Your task to perform on an android device: turn on priority inbox in the gmail app Image 0: 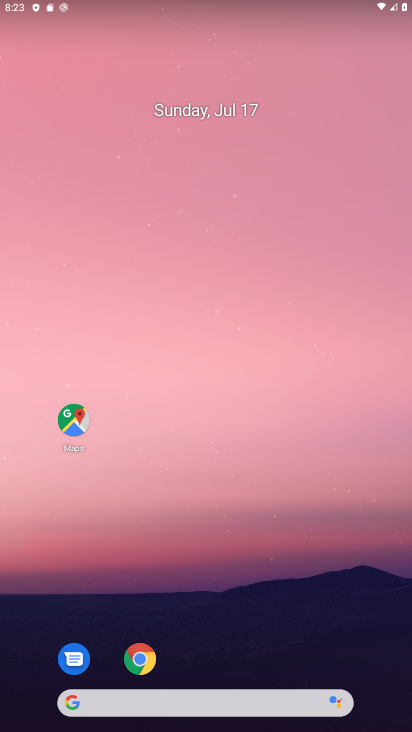
Step 0: drag from (219, 699) to (323, 127)
Your task to perform on an android device: turn on priority inbox in the gmail app Image 1: 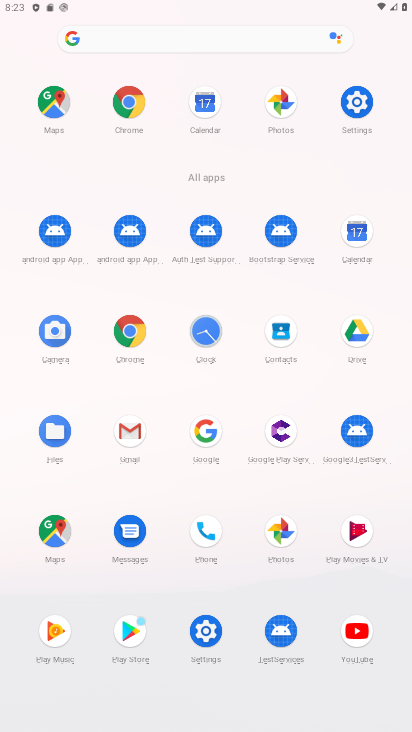
Step 1: click (128, 430)
Your task to perform on an android device: turn on priority inbox in the gmail app Image 2: 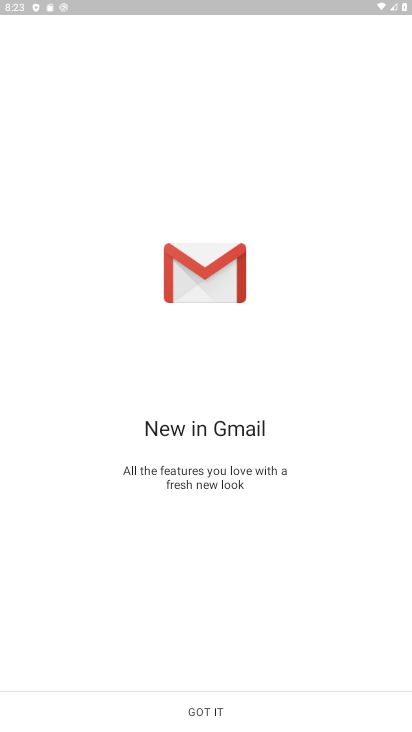
Step 2: click (204, 710)
Your task to perform on an android device: turn on priority inbox in the gmail app Image 3: 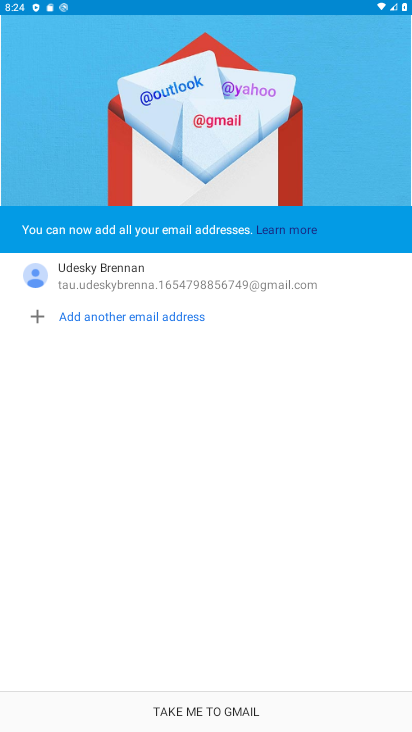
Step 3: click (229, 283)
Your task to perform on an android device: turn on priority inbox in the gmail app Image 4: 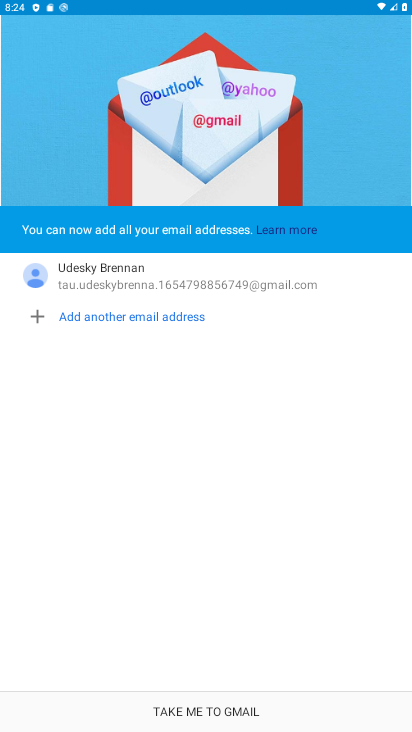
Step 4: click (231, 285)
Your task to perform on an android device: turn on priority inbox in the gmail app Image 5: 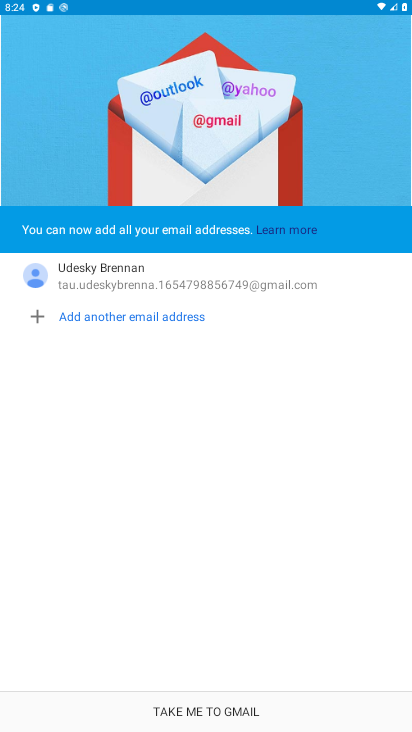
Step 5: click (216, 714)
Your task to perform on an android device: turn on priority inbox in the gmail app Image 6: 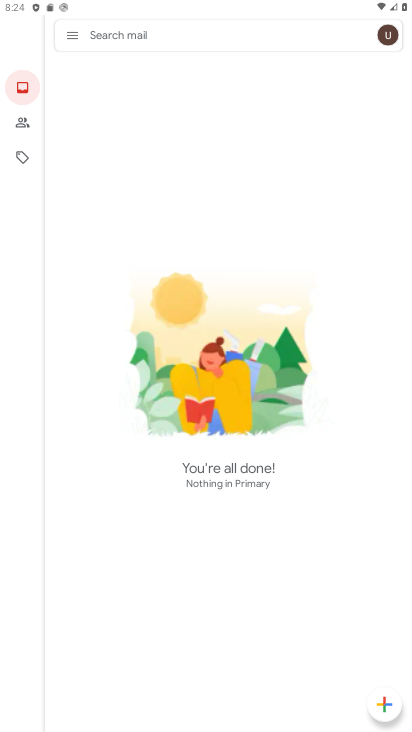
Step 6: click (68, 37)
Your task to perform on an android device: turn on priority inbox in the gmail app Image 7: 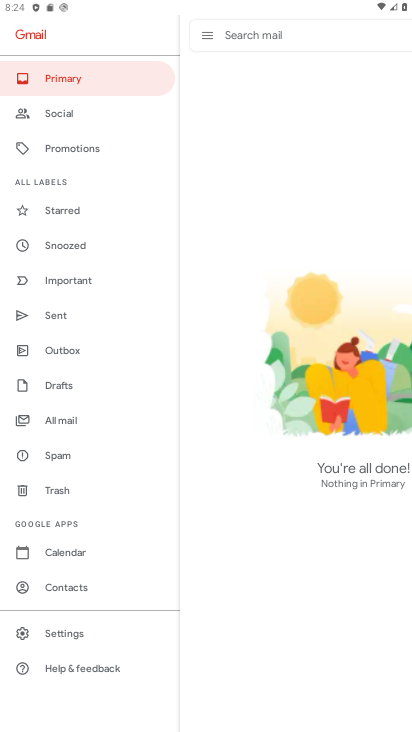
Step 7: click (69, 631)
Your task to perform on an android device: turn on priority inbox in the gmail app Image 8: 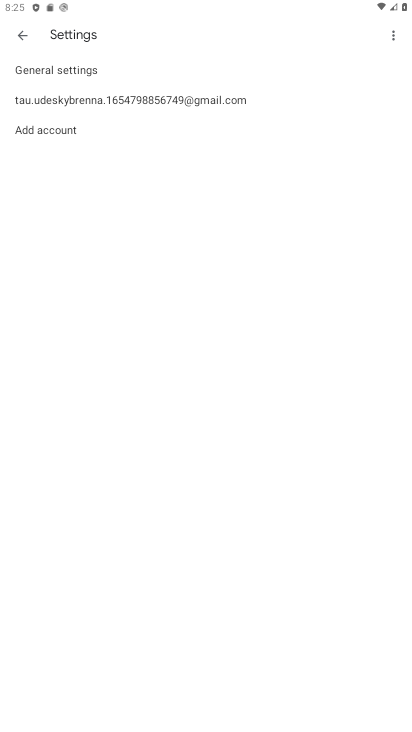
Step 8: click (174, 99)
Your task to perform on an android device: turn on priority inbox in the gmail app Image 9: 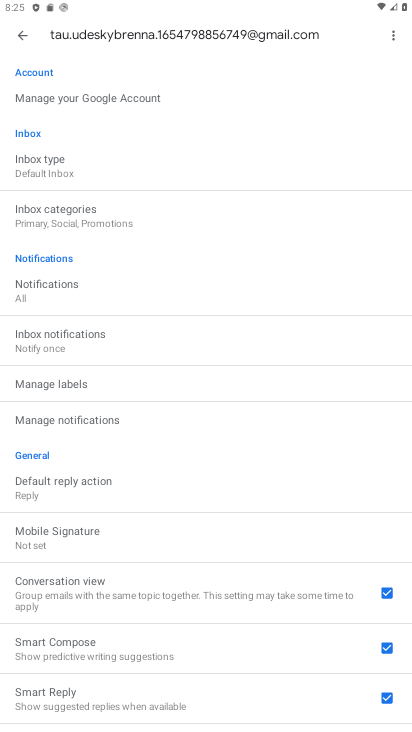
Step 9: click (55, 175)
Your task to perform on an android device: turn on priority inbox in the gmail app Image 10: 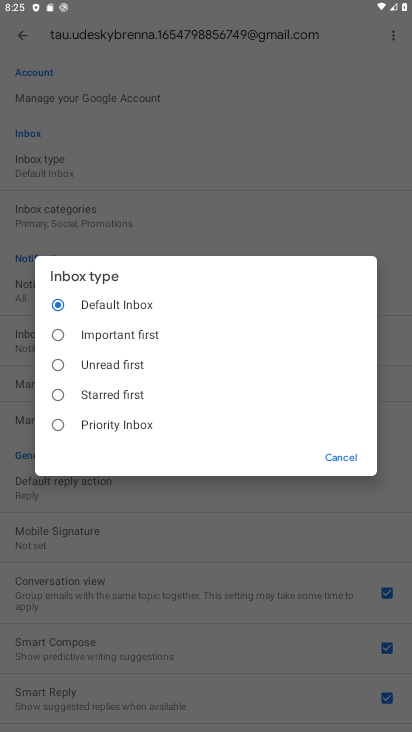
Step 10: click (58, 425)
Your task to perform on an android device: turn on priority inbox in the gmail app Image 11: 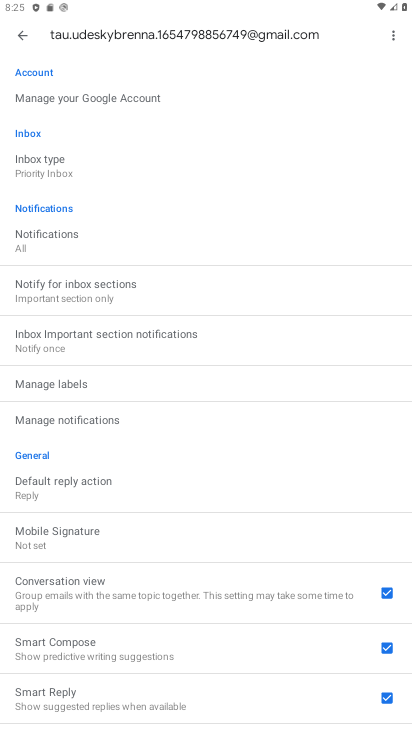
Step 11: task complete